Your task to perform on an android device: turn on showing notifications on the lock screen Image 0: 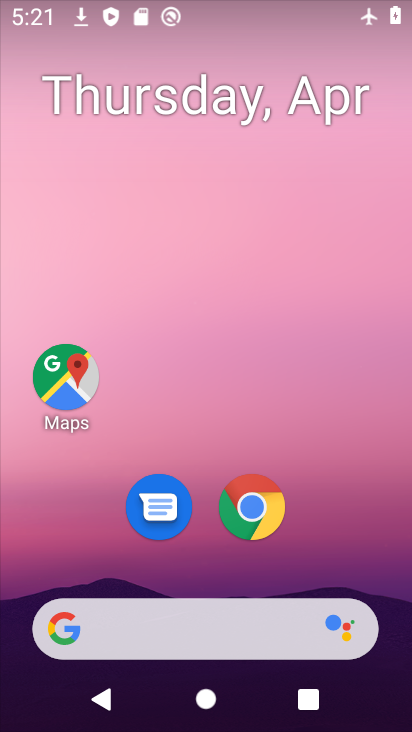
Step 0: drag from (317, 547) to (356, 52)
Your task to perform on an android device: turn on showing notifications on the lock screen Image 1: 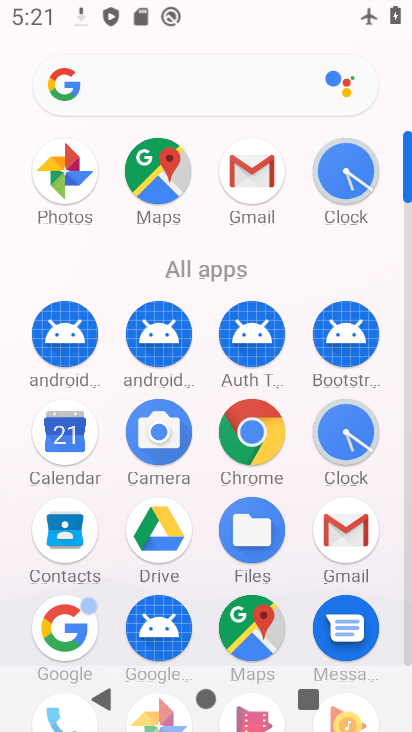
Step 1: drag from (291, 236) to (311, 24)
Your task to perform on an android device: turn on showing notifications on the lock screen Image 2: 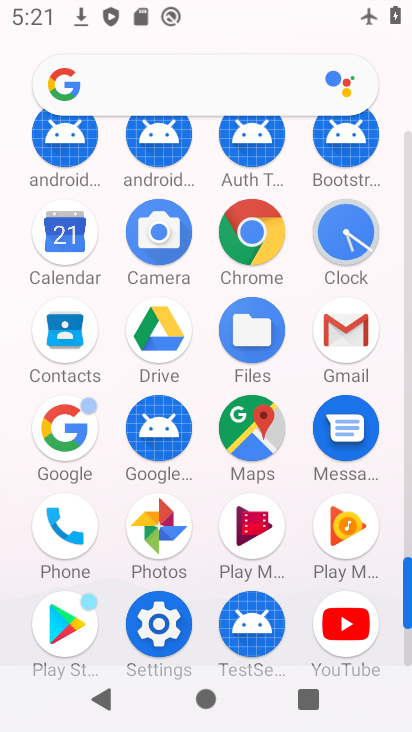
Step 2: click (163, 625)
Your task to perform on an android device: turn on showing notifications on the lock screen Image 3: 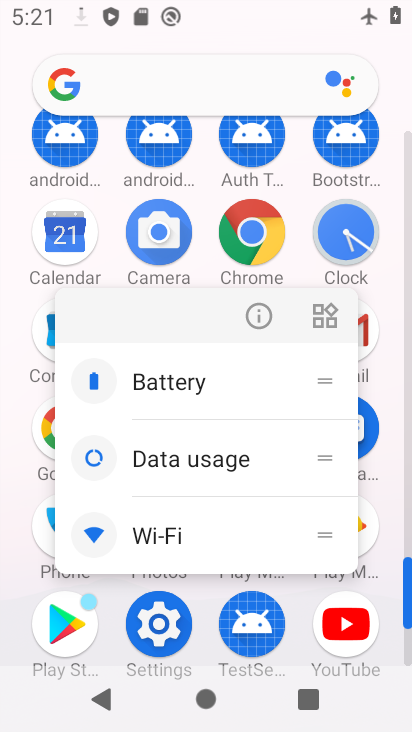
Step 3: click (155, 630)
Your task to perform on an android device: turn on showing notifications on the lock screen Image 4: 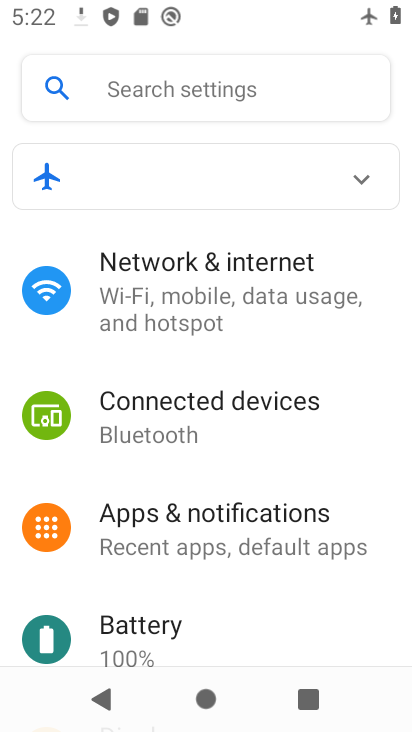
Step 4: click (262, 529)
Your task to perform on an android device: turn on showing notifications on the lock screen Image 5: 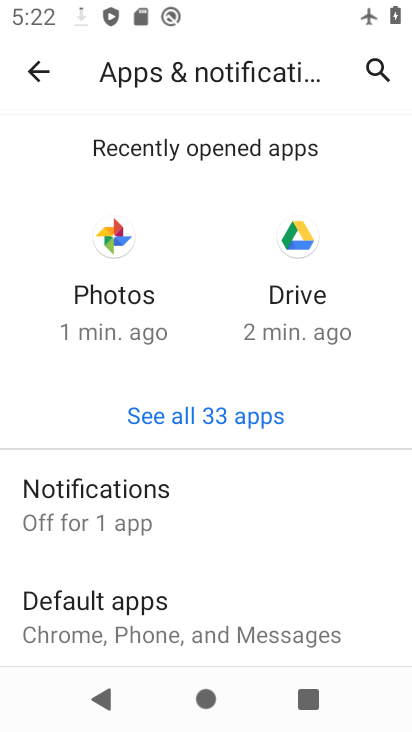
Step 5: click (43, 489)
Your task to perform on an android device: turn on showing notifications on the lock screen Image 6: 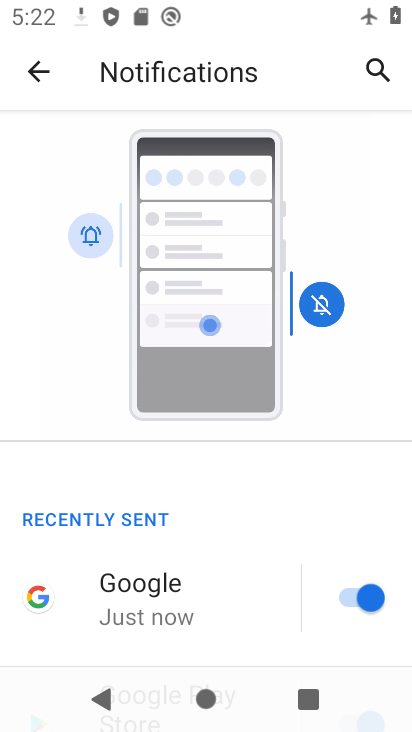
Step 6: drag from (220, 568) to (326, 111)
Your task to perform on an android device: turn on showing notifications on the lock screen Image 7: 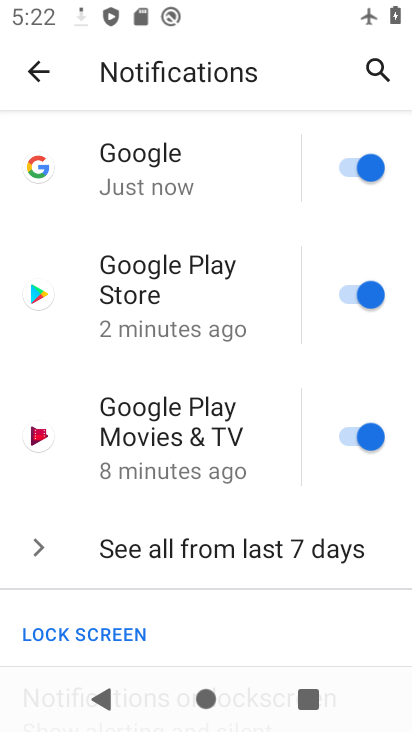
Step 7: drag from (239, 630) to (294, 168)
Your task to perform on an android device: turn on showing notifications on the lock screen Image 8: 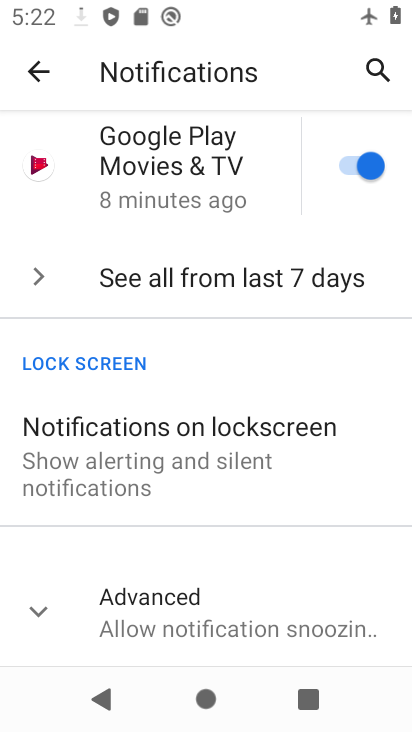
Step 8: click (106, 438)
Your task to perform on an android device: turn on showing notifications on the lock screen Image 9: 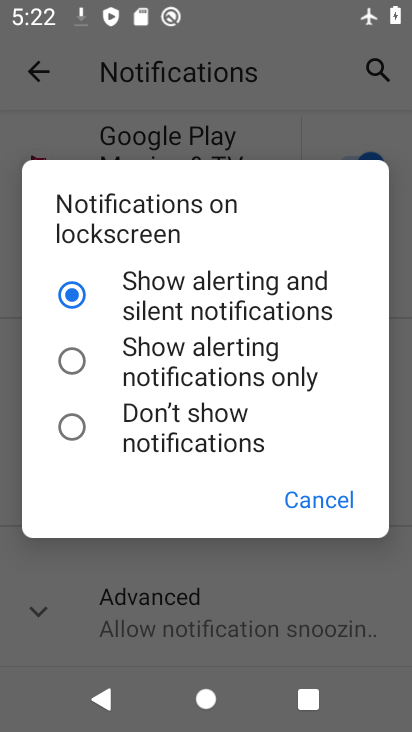
Step 9: click (206, 354)
Your task to perform on an android device: turn on showing notifications on the lock screen Image 10: 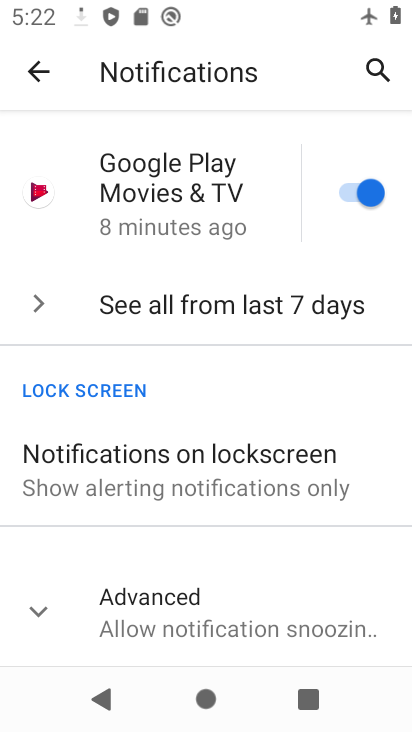
Step 10: task complete